Your task to perform on an android device: Do I have any events this weekend? Image 0: 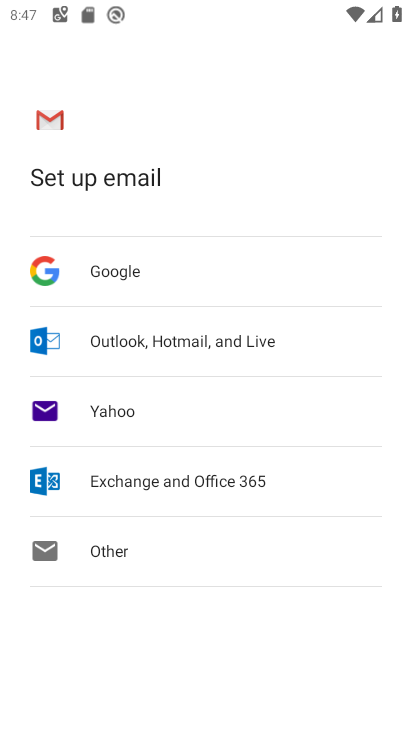
Step 0: press home button
Your task to perform on an android device: Do I have any events this weekend? Image 1: 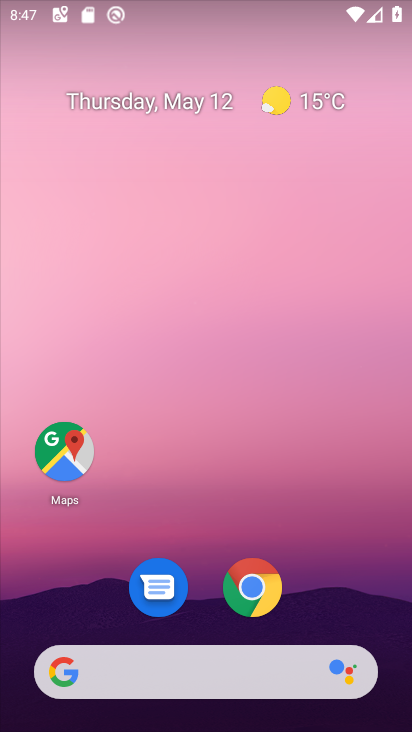
Step 1: drag from (395, 588) to (357, 65)
Your task to perform on an android device: Do I have any events this weekend? Image 2: 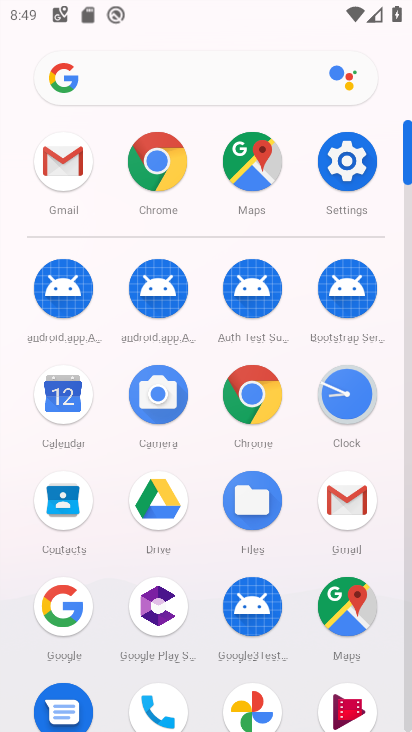
Step 2: click (65, 406)
Your task to perform on an android device: Do I have any events this weekend? Image 3: 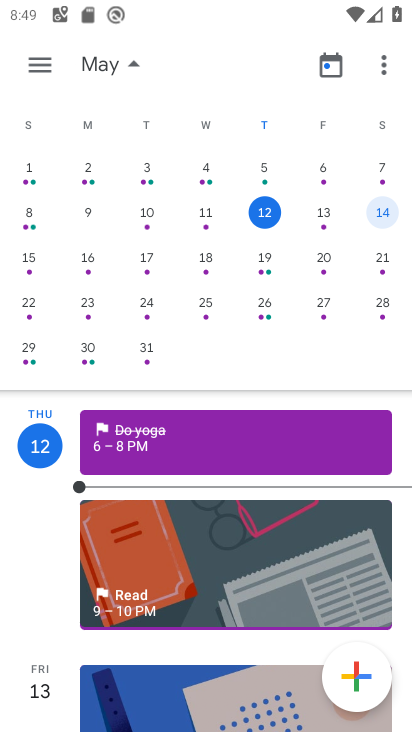
Step 3: click (104, 71)
Your task to perform on an android device: Do I have any events this weekend? Image 4: 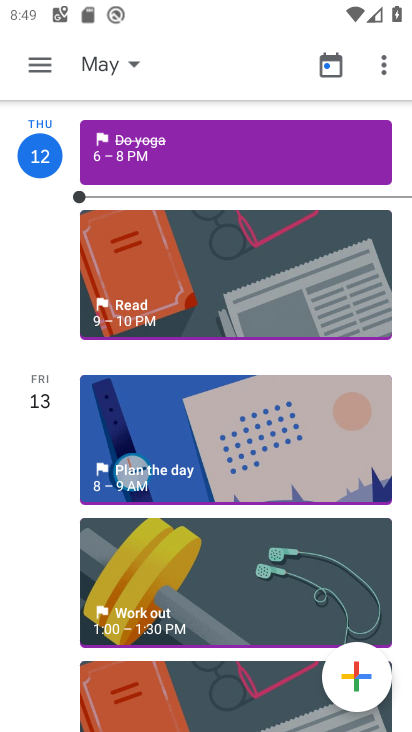
Step 4: click (33, 57)
Your task to perform on an android device: Do I have any events this weekend? Image 5: 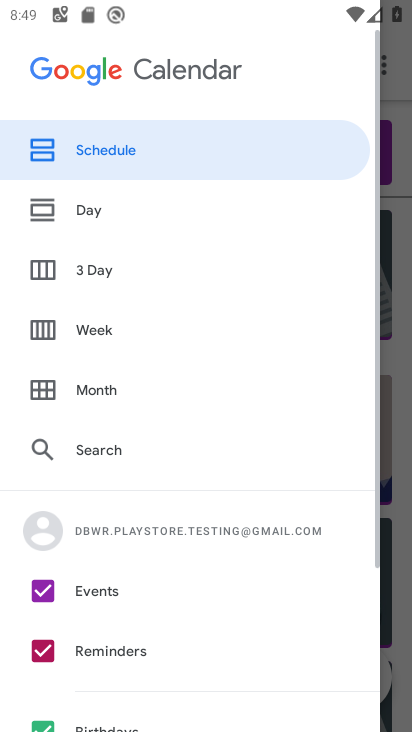
Step 5: click (140, 143)
Your task to perform on an android device: Do I have any events this weekend? Image 6: 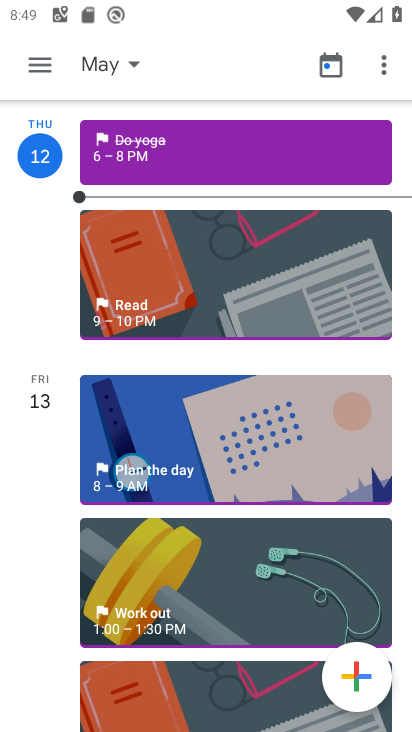
Step 6: task complete